Your task to perform on an android device: Open Google Chrome and open the bookmarks view Image 0: 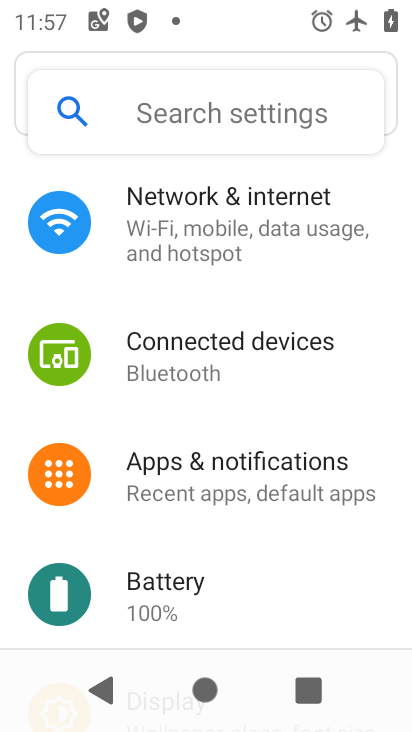
Step 0: press home button
Your task to perform on an android device: Open Google Chrome and open the bookmarks view Image 1: 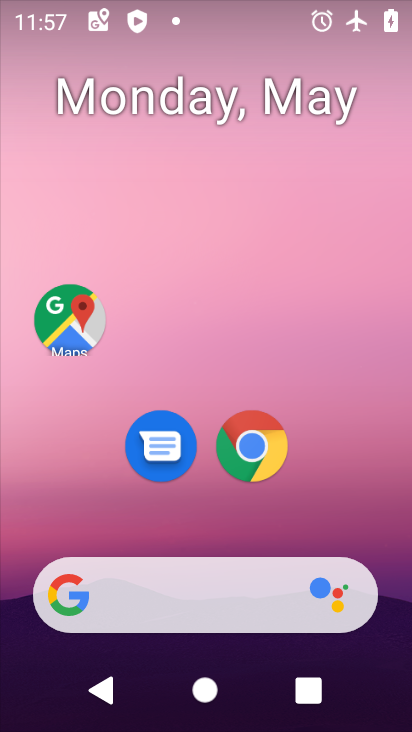
Step 1: drag from (178, 515) to (223, 189)
Your task to perform on an android device: Open Google Chrome and open the bookmarks view Image 2: 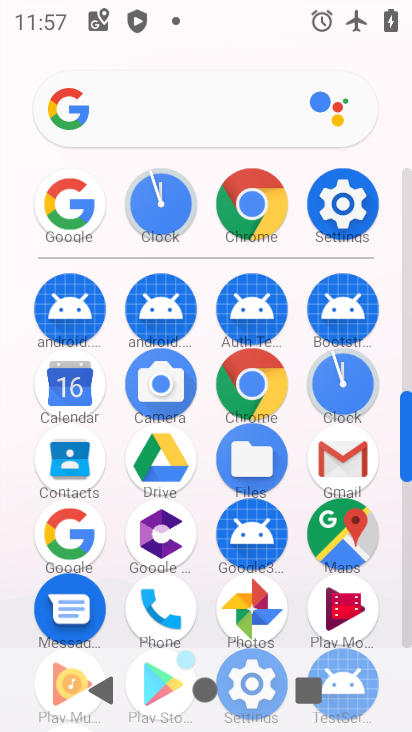
Step 2: click (258, 185)
Your task to perform on an android device: Open Google Chrome and open the bookmarks view Image 3: 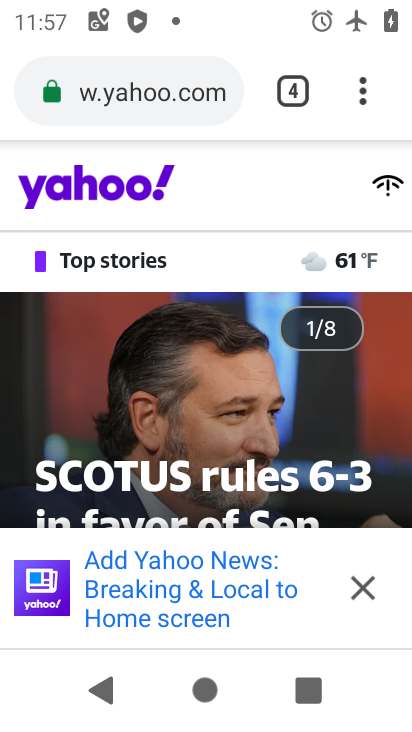
Step 3: click (357, 90)
Your task to perform on an android device: Open Google Chrome and open the bookmarks view Image 4: 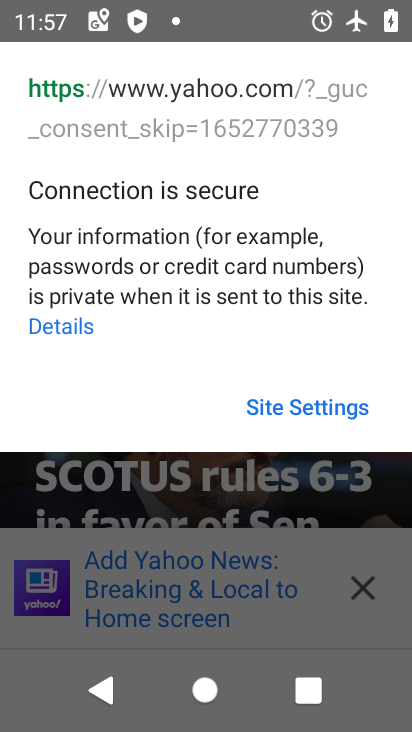
Step 4: press back button
Your task to perform on an android device: Open Google Chrome and open the bookmarks view Image 5: 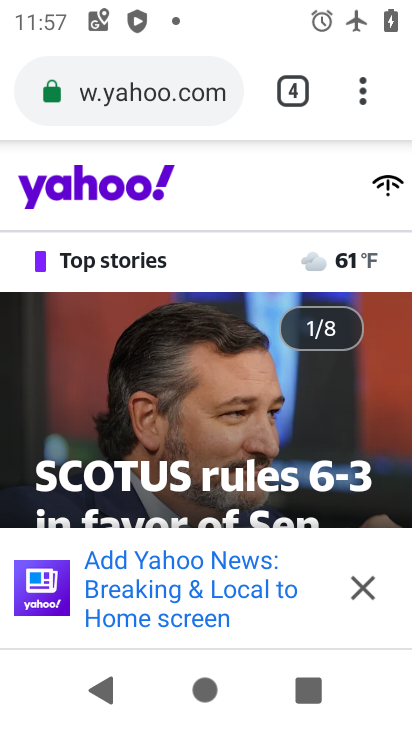
Step 5: click (368, 84)
Your task to perform on an android device: Open Google Chrome and open the bookmarks view Image 6: 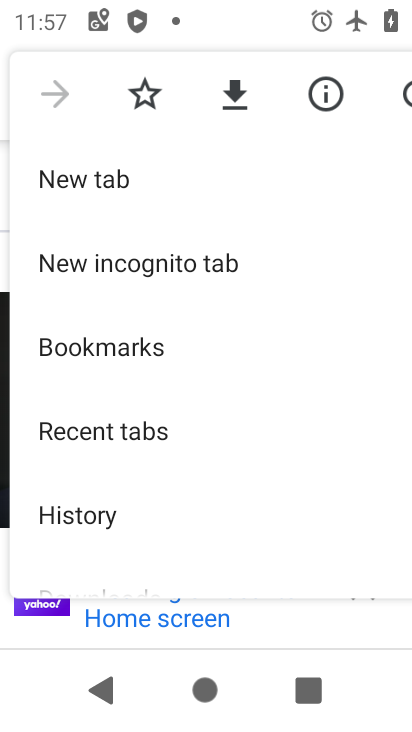
Step 6: drag from (167, 456) to (184, 363)
Your task to perform on an android device: Open Google Chrome and open the bookmarks view Image 7: 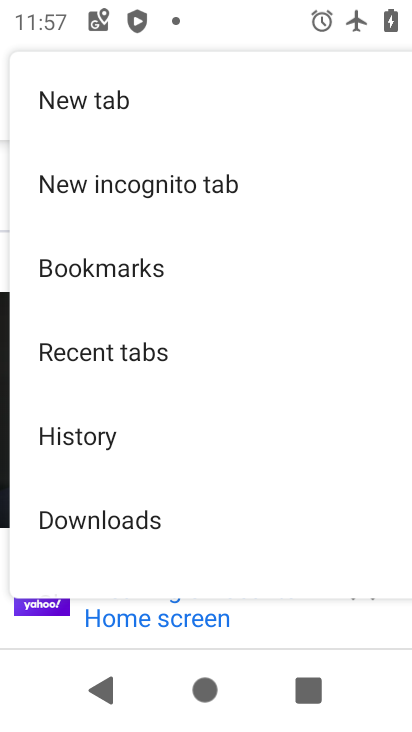
Step 7: click (168, 258)
Your task to perform on an android device: Open Google Chrome and open the bookmarks view Image 8: 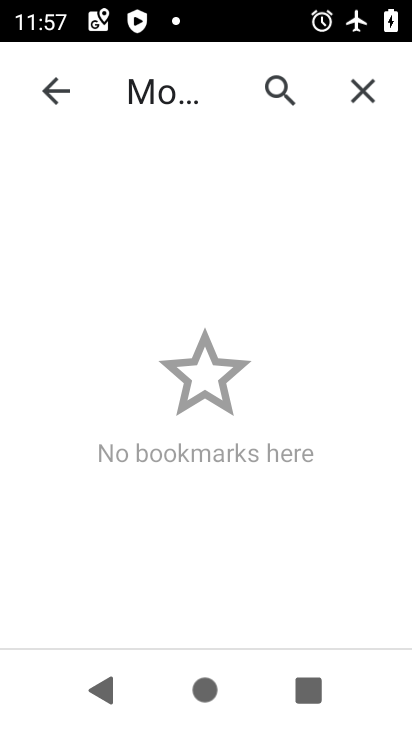
Step 8: task complete